Your task to perform on an android device: turn on notifications settings in the gmail app Image 0: 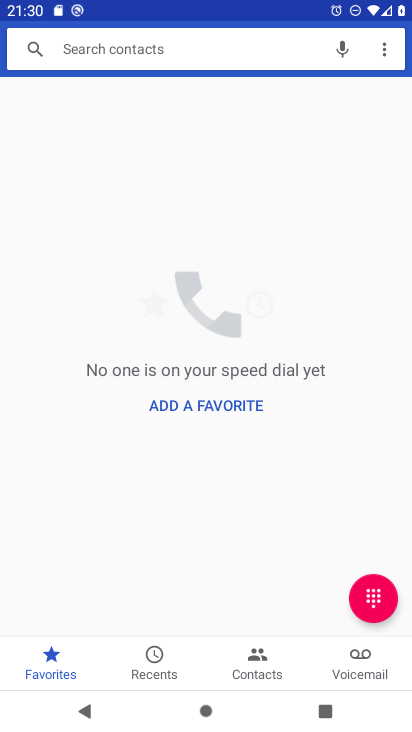
Step 0: press home button
Your task to perform on an android device: turn on notifications settings in the gmail app Image 1: 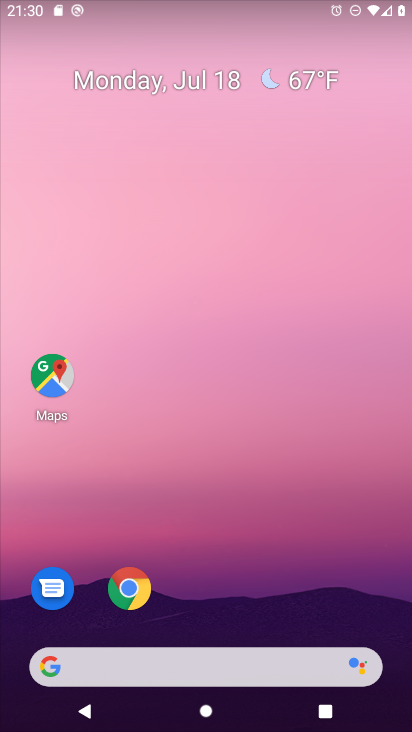
Step 1: drag from (392, 626) to (338, 139)
Your task to perform on an android device: turn on notifications settings in the gmail app Image 2: 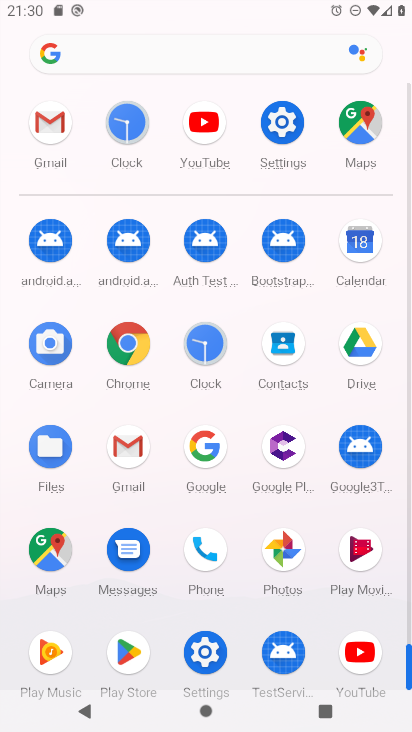
Step 2: click (129, 446)
Your task to perform on an android device: turn on notifications settings in the gmail app Image 3: 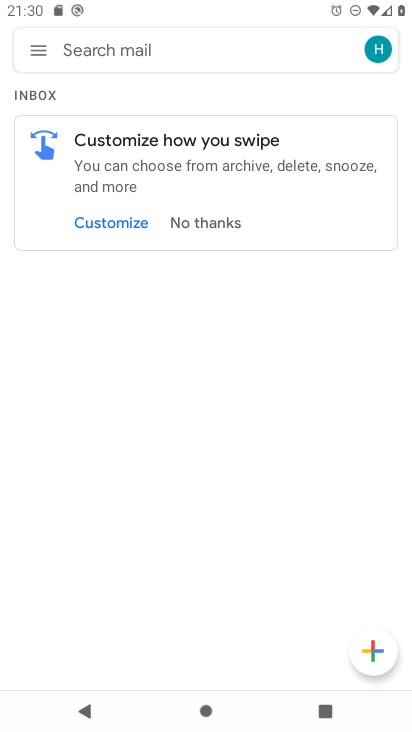
Step 3: click (39, 50)
Your task to perform on an android device: turn on notifications settings in the gmail app Image 4: 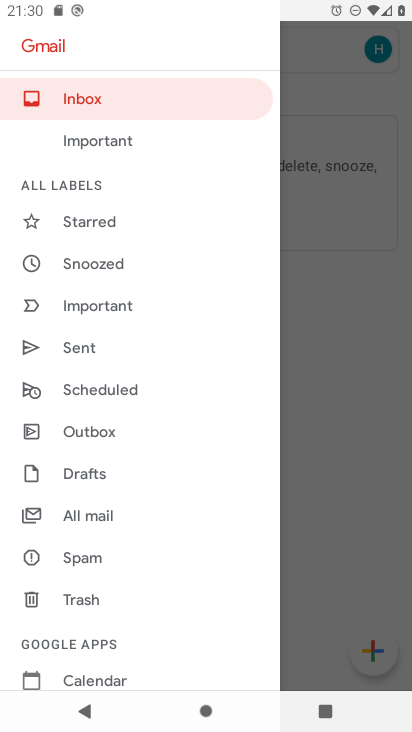
Step 4: drag from (198, 651) to (206, 173)
Your task to perform on an android device: turn on notifications settings in the gmail app Image 5: 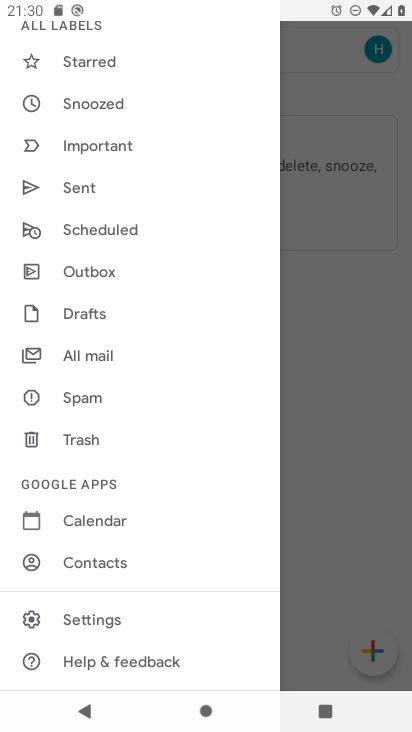
Step 5: click (78, 617)
Your task to perform on an android device: turn on notifications settings in the gmail app Image 6: 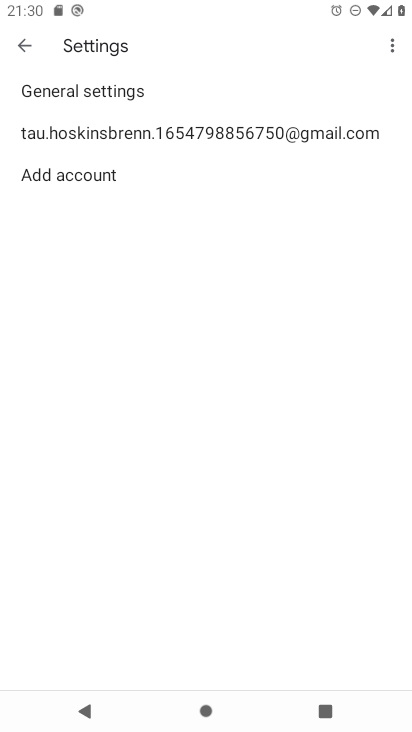
Step 6: click (139, 143)
Your task to perform on an android device: turn on notifications settings in the gmail app Image 7: 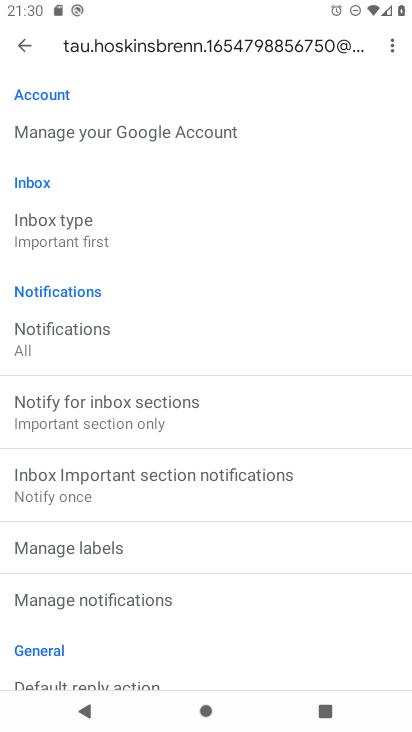
Step 7: click (94, 591)
Your task to perform on an android device: turn on notifications settings in the gmail app Image 8: 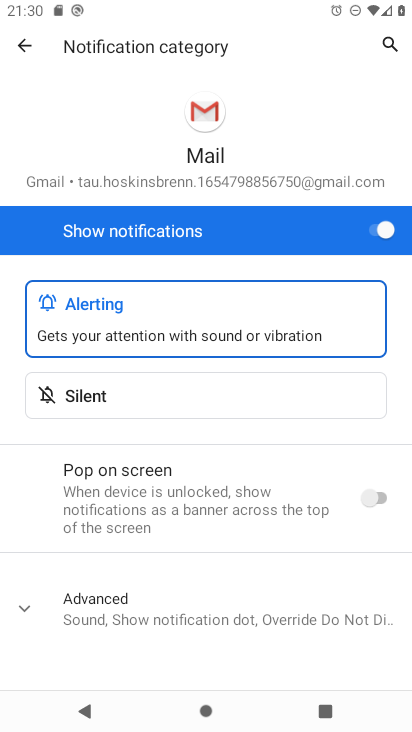
Step 8: task complete